Your task to perform on an android device: check out phone information Image 0: 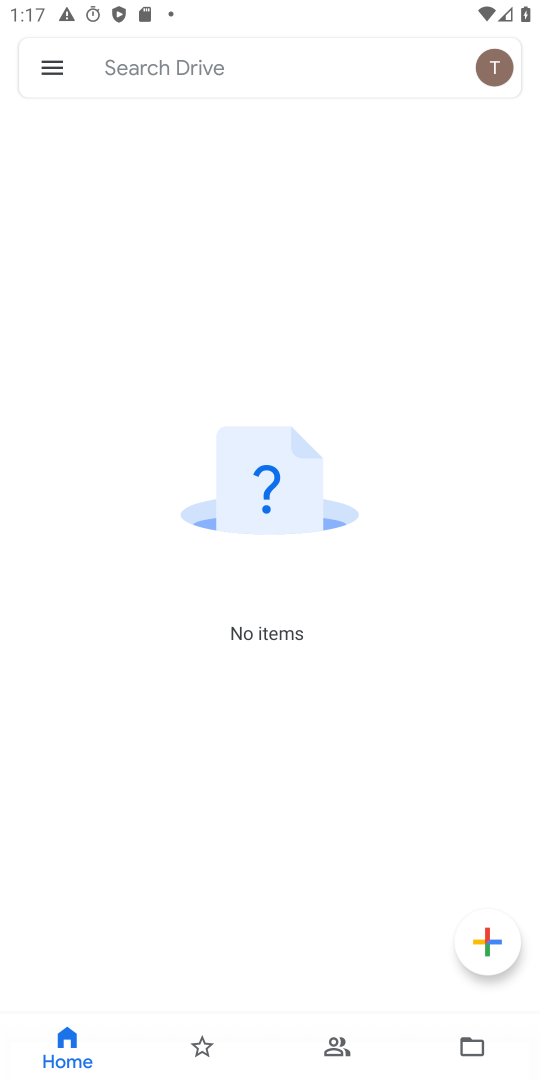
Step 0: press home button
Your task to perform on an android device: check out phone information Image 1: 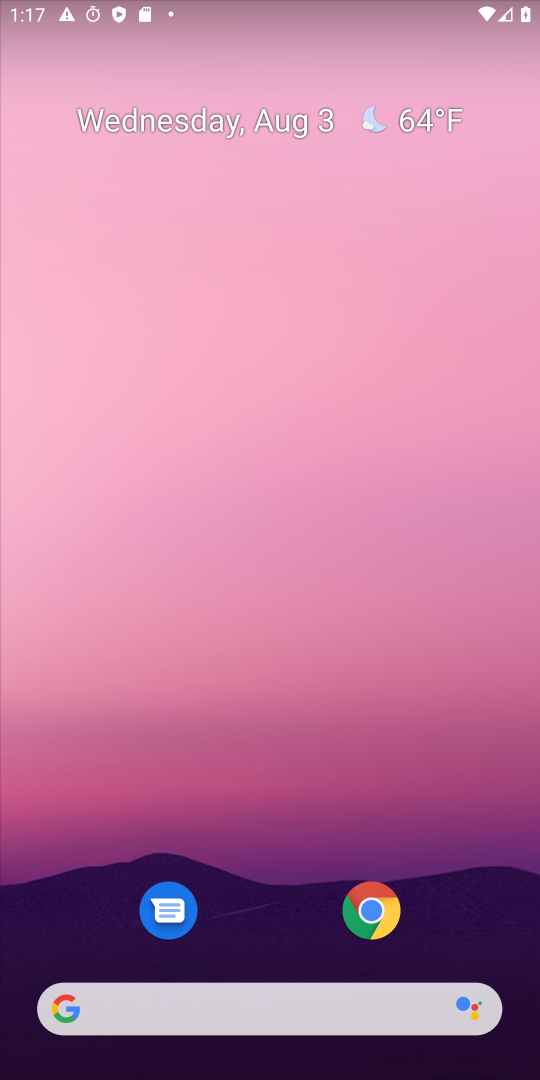
Step 1: drag from (274, 956) to (420, 230)
Your task to perform on an android device: check out phone information Image 2: 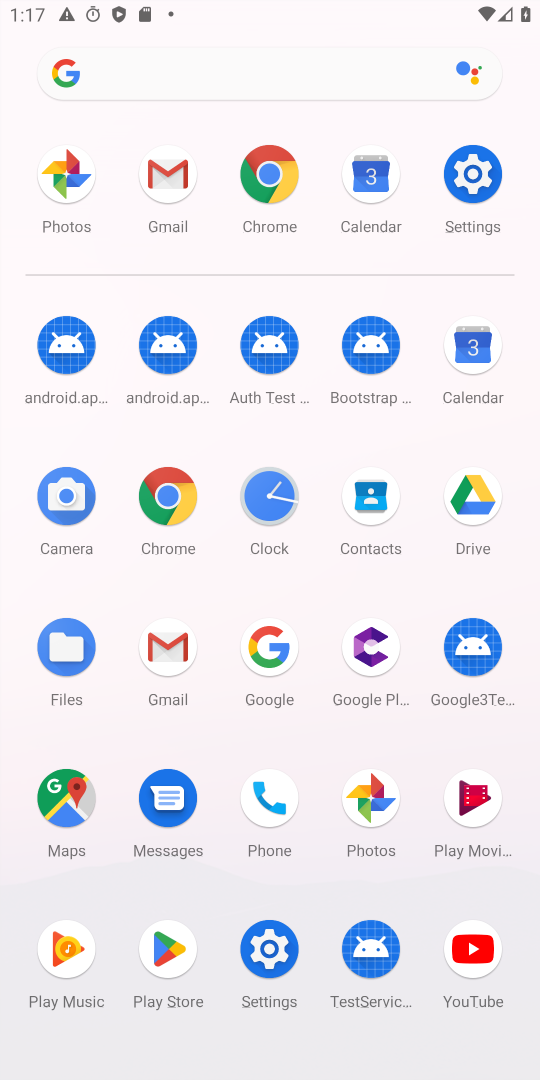
Step 2: click (471, 175)
Your task to perform on an android device: check out phone information Image 3: 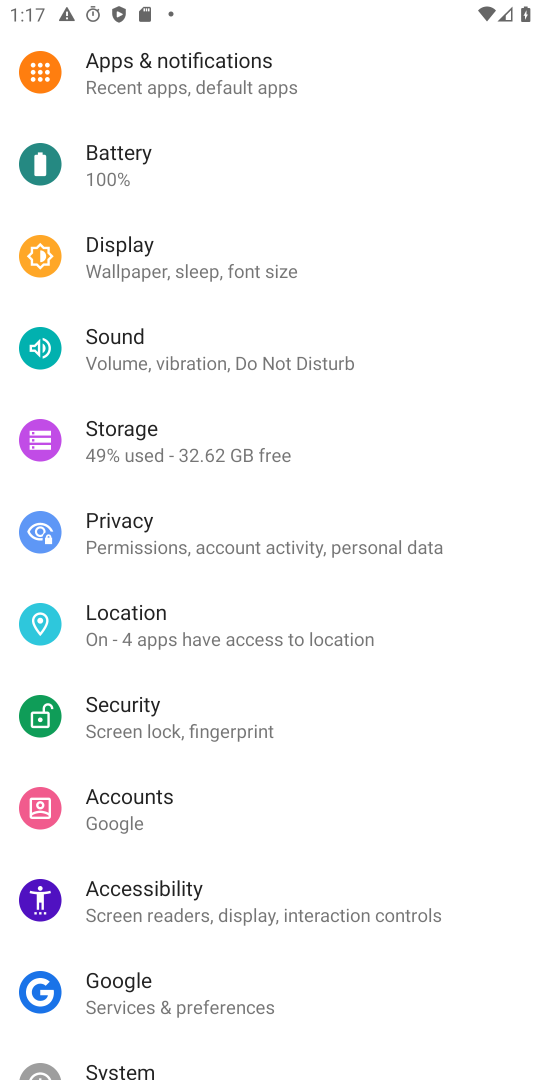
Step 3: drag from (260, 1048) to (301, 330)
Your task to perform on an android device: check out phone information Image 4: 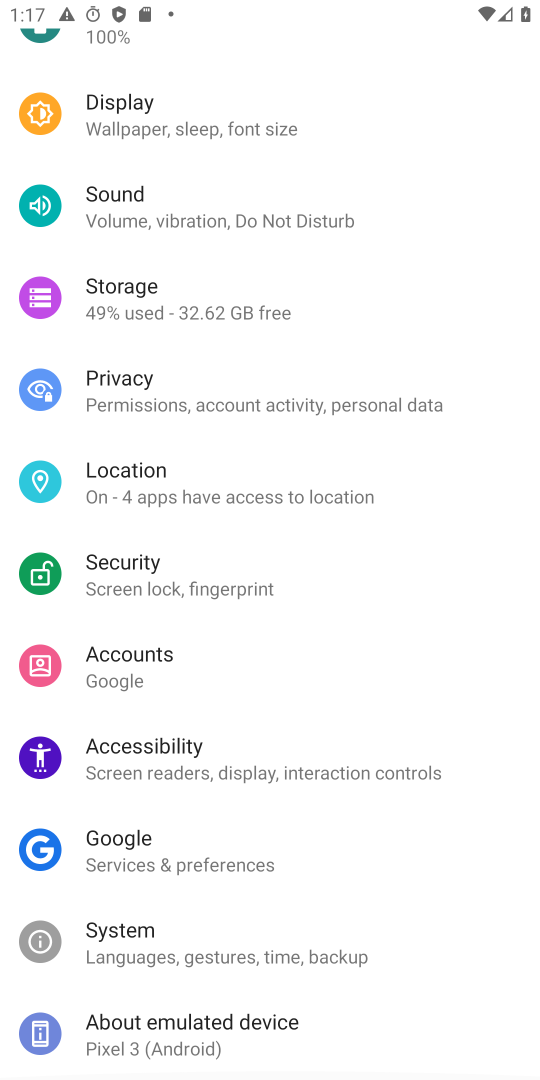
Step 4: click (253, 1070)
Your task to perform on an android device: check out phone information Image 5: 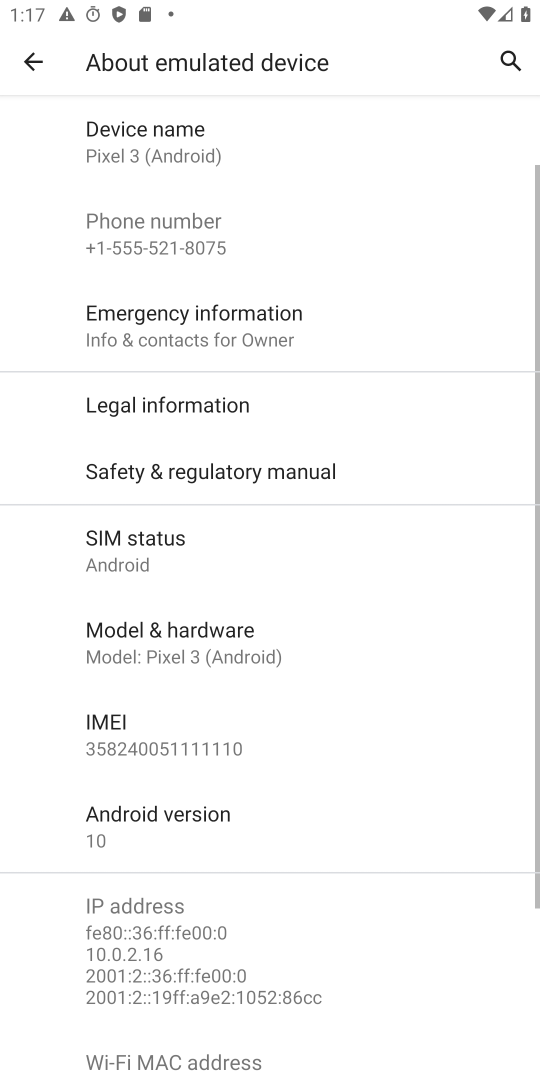
Step 5: task complete